Your task to perform on an android device: open wifi settings Image 0: 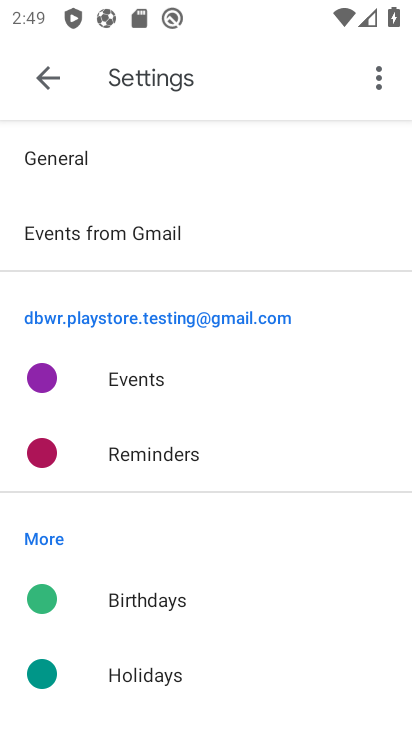
Step 0: drag from (263, 3) to (202, 451)
Your task to perform on an android device: open wifi settings Image 1: 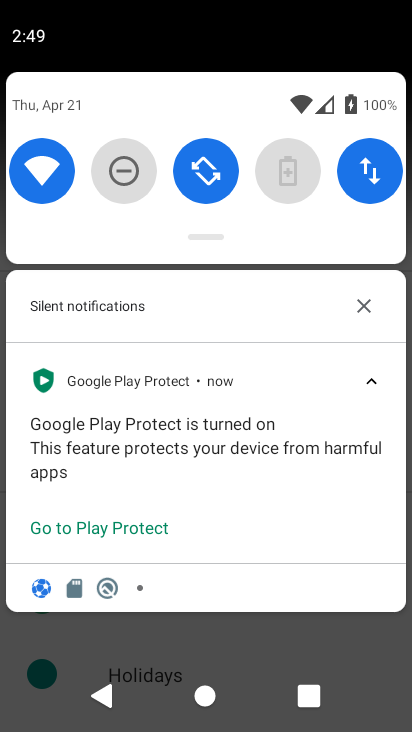
Step 1: click (37, 172)
Your task to perform on an android device: open wifi settings Image 2: 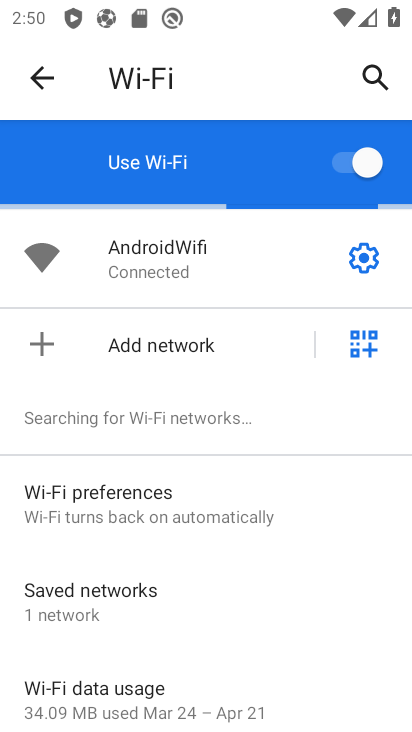
Step 2: task complete